Your task to perform on an android device: turn on sleep mode Image 0: 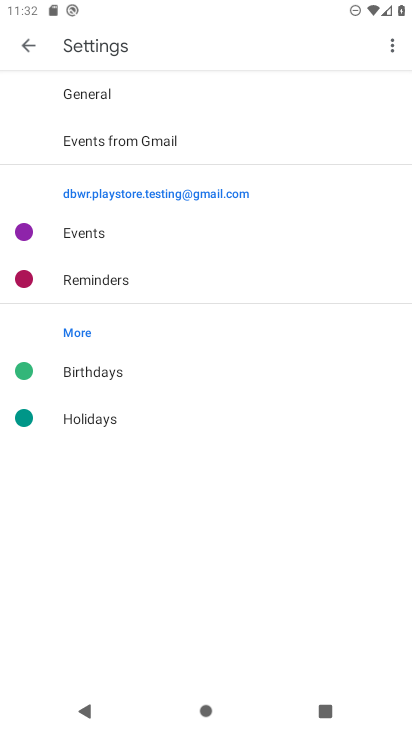
Step 0: press home button
Your task to perform on an android device: turn on sleep mode Image 1: 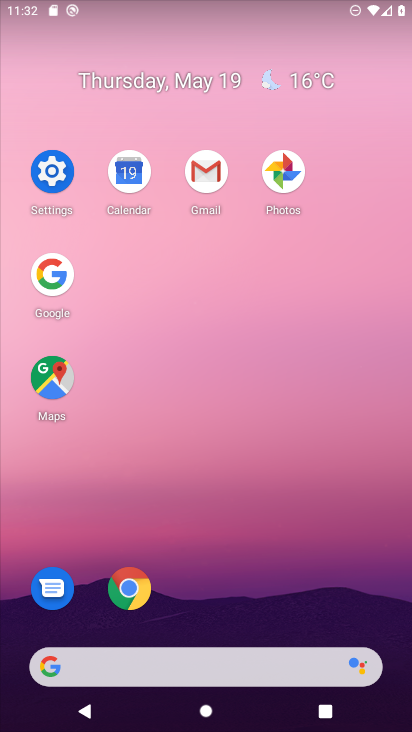
Step 1: click (59, 168)
Your task to perform on an android device: turn on sleep mode Image 2: 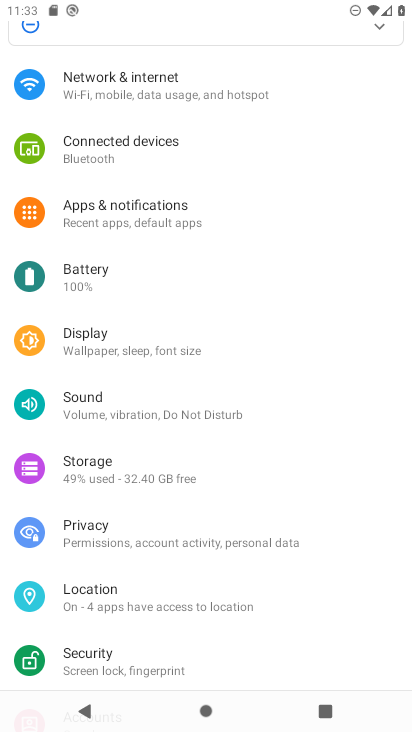
Step 2: click (209, 352)
Your task to perform on an android device: turn on sleep mode Image 3: 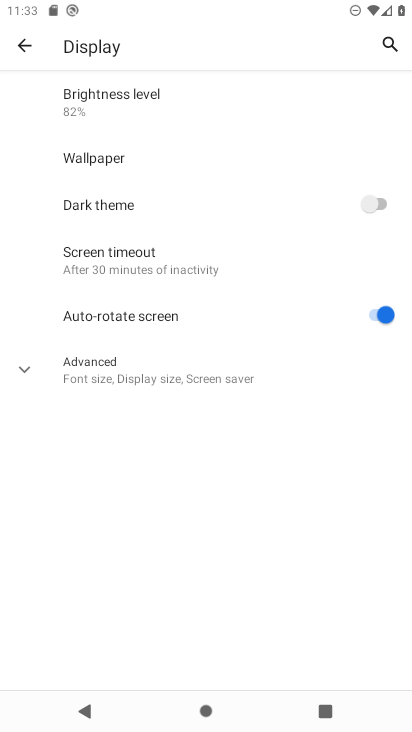
Step 3: click (159, 260)
Your task to perform on an android device: turn on sleep mode Image 4: 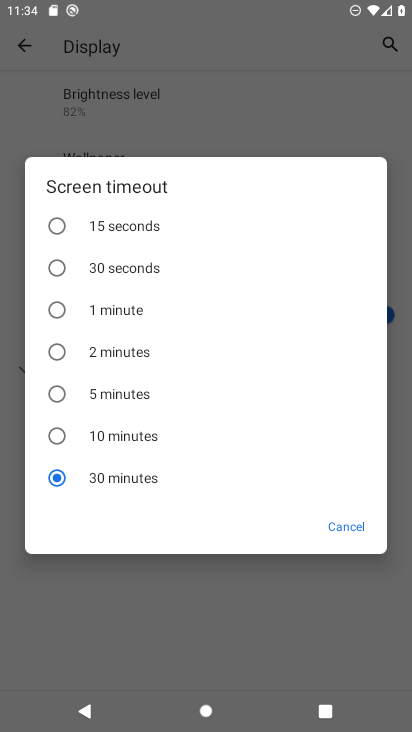
Step 4: task complete